Your task to perform on an android device: turn off notifications settings in the gmail app Image 0: 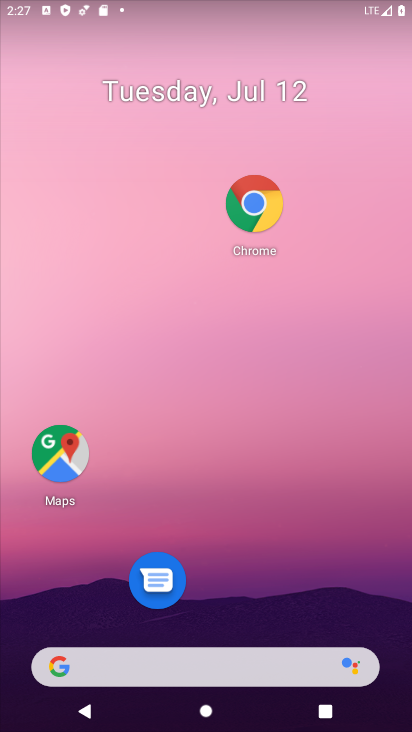
Step 0: drag from (199, 16) to (257, 504)
Your task to perform on an android device: turn off notifications settings in the gmail app Image 1: 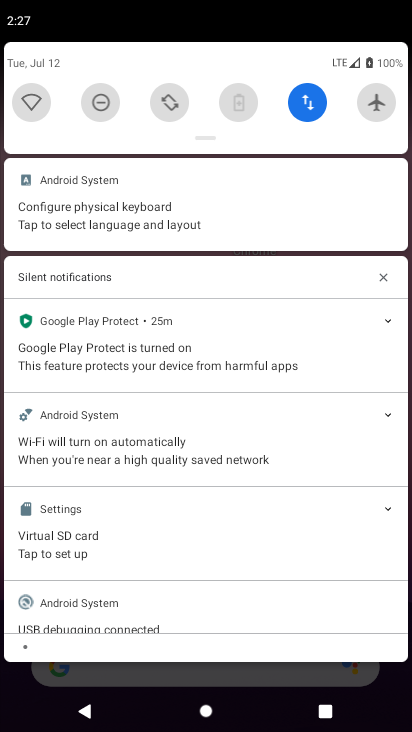
Step 1: drag from (215, 67) to (290, 677)
Your task to perform on an android device: turn off notifications settings in the gmail app Image 2: 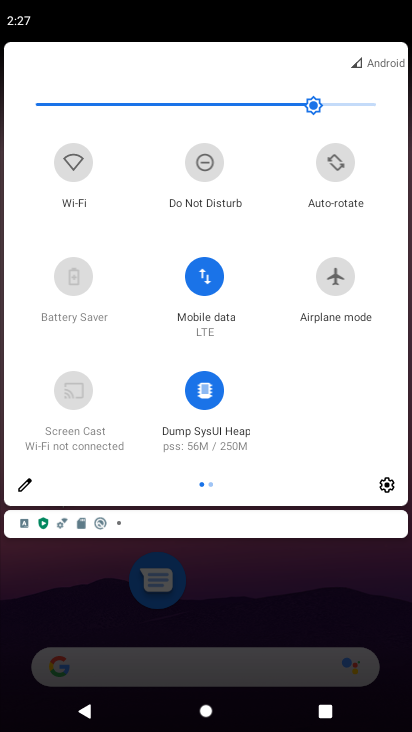
Step 2: click (384, 478)
Your task to perform on an android device: turn off notifications settings in the gmail app Image 3: 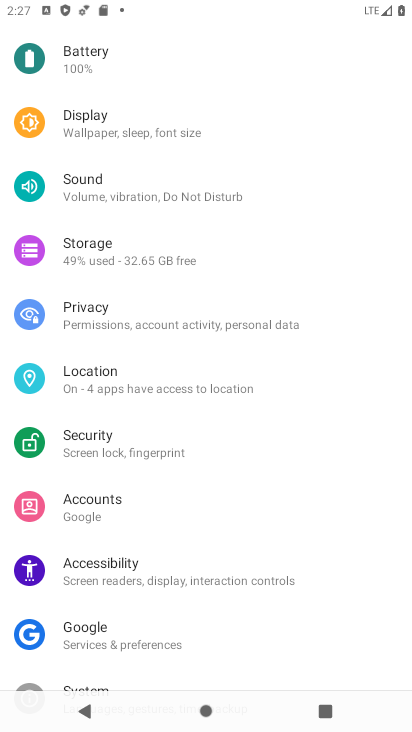
Step 3: drag from (157, 84) to (224, 561)
Your task to perform on an android device: turn off notifications settings in the gmail app Image 4: 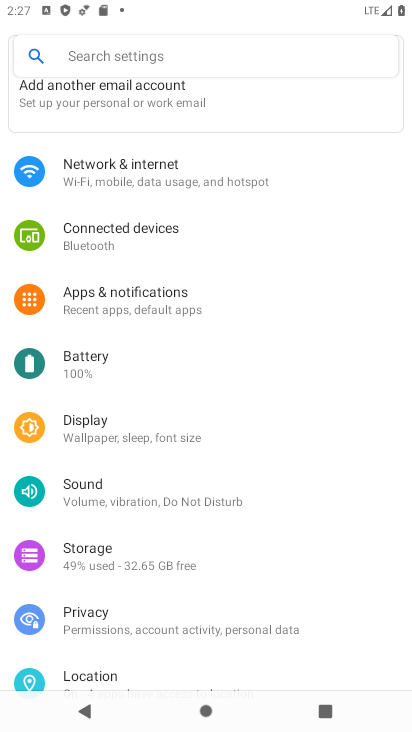
Step 4: click (153, 307)
Your task to perform on an android device: turn off notifications settings in the gmail app Image 5: 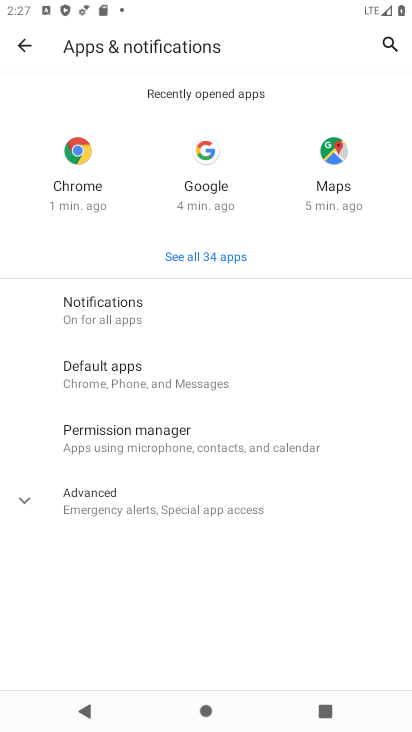
Step 5: click (214, 253)
Your task to perform on an android device: turn off notifications settings in the gmail app Image 6: 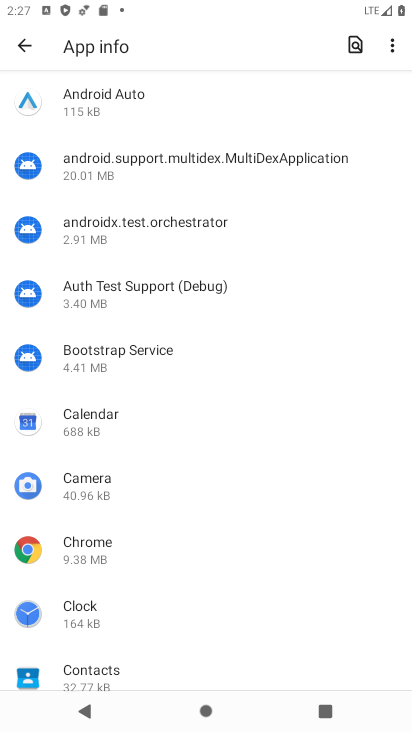
Step 6: drag from (91, 594) to (128, 87)
Your task to perform on an android device: turn off notifications settings in the gmail app Image 7: 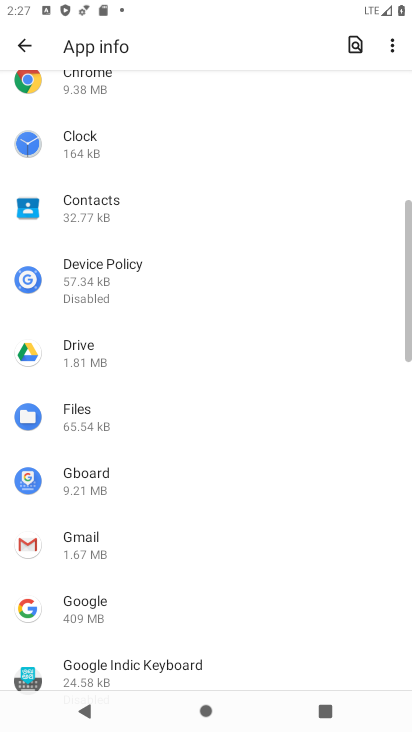
Step 7: drag from (251, 564) to (255, 309)
Your task to perform on an android device: turn off notifications settings in the gmail app Image 8: 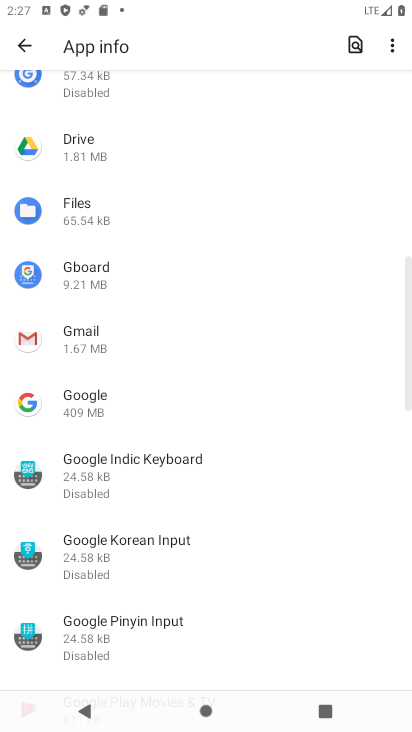
Step 8: click (88, 329)
Your task to perform on an android device: turn off notifications settings in the gmail app Image 9: 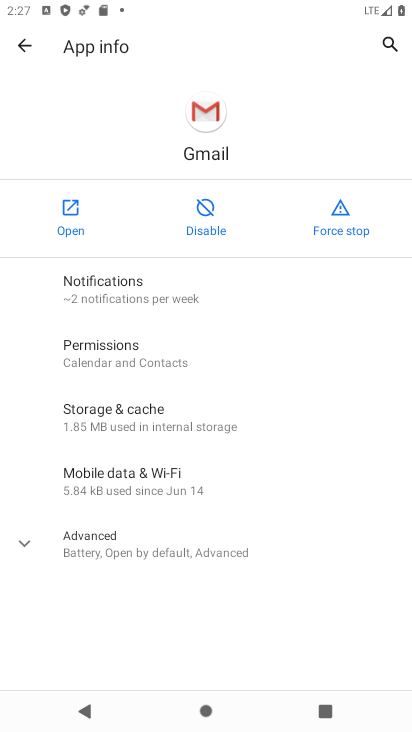
Step 9: click (150, 296)
Your task to perform on an android device: turn off notifications settings in the gmail app Image 10: 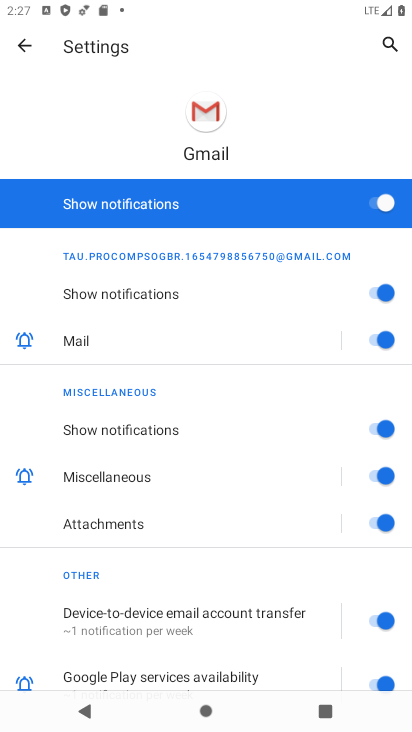
Step 10: click (374, 200)
Your task to perform on an android device: turn off notifications settings in the gmail app Image 11: 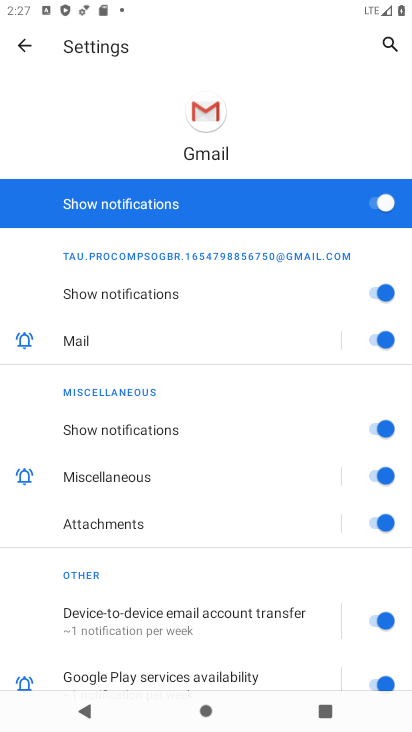
Step 11: task complete